Your task to perform on an android device: turn on the 12-hour format for clock Image 0: 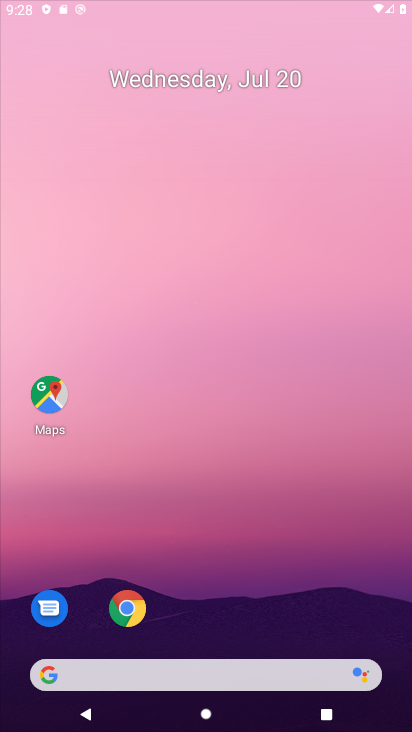
Step 0: press back button
Your task to perform on an android device: turn on the 12-hour format for clock Image 1: 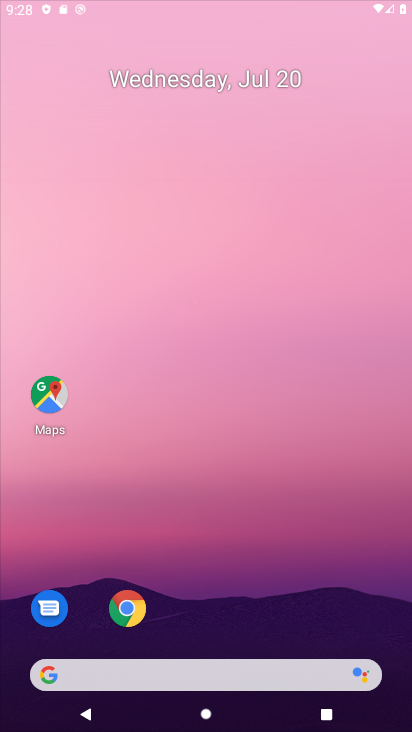
Step 1: drag from (198, 183) to (171, 112)
Your task to perform on an android device: turn on the 12-hour format for clock Image 2: 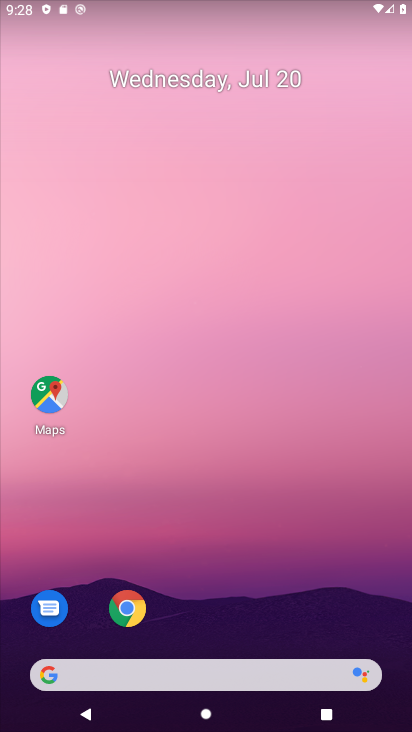
Step 2: press back button
Your task to perform on an android device: turn on the 12-hour format for clock Image 3: 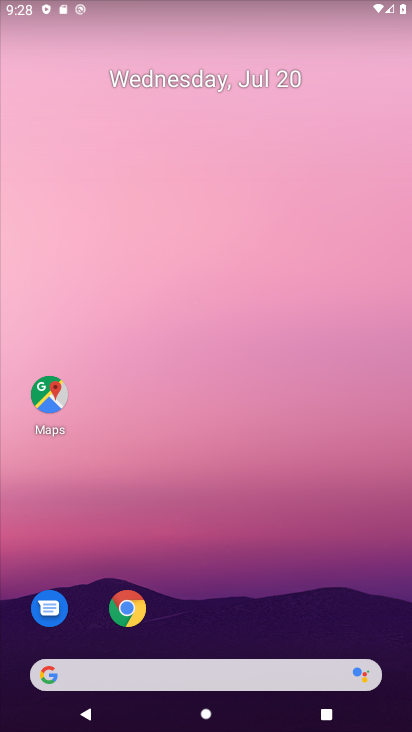
Step 3: press back button
Your task to perform on an android device: turn on the 12-hour format for clock Image 4: 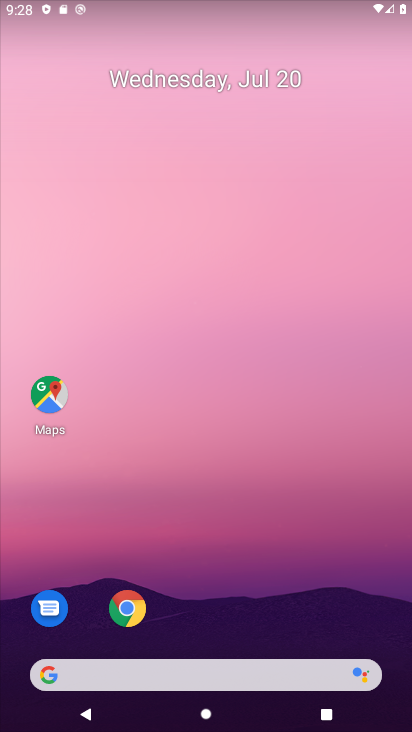
Step 4: drag from (252, 613) to (155, 64)
Your task to perform on an android device: turn on the 12-hour format for clock Image 5: 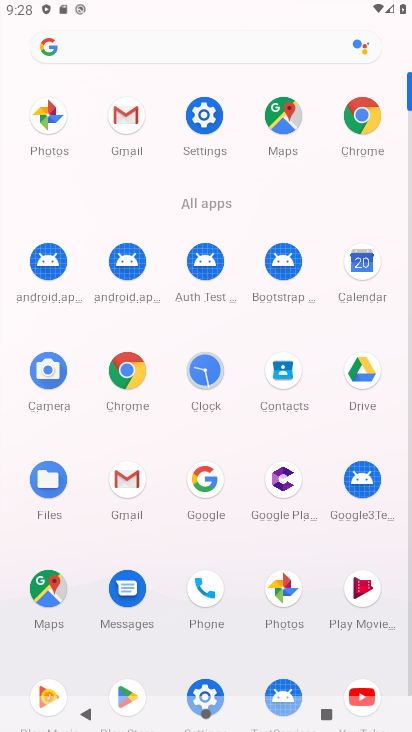
Step 5: click (193, 361)
Your task to perform on an android device: turn on the 12-hour format for clock Image 6: 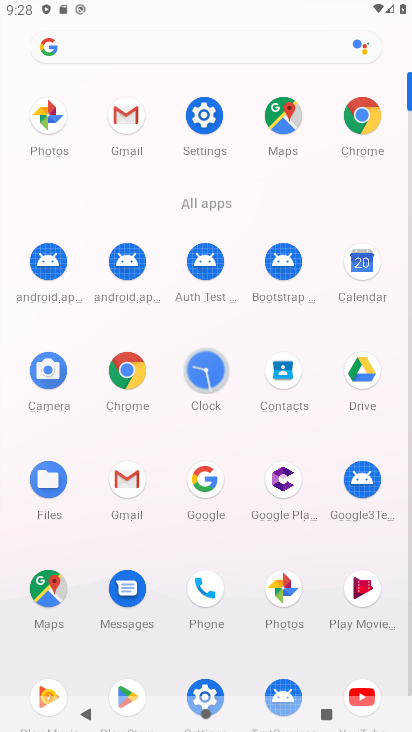
Step 6: click (193, 361)
Your task to perform on an android device: turn on the 12-hour format for clock Image 7: 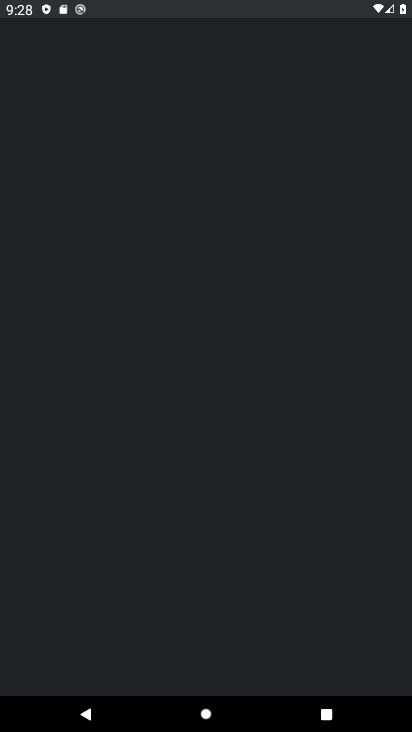
Step 7: click (203, 367)
Your task to perform on an android device: turn on the 12-hour format for clock Image 8: 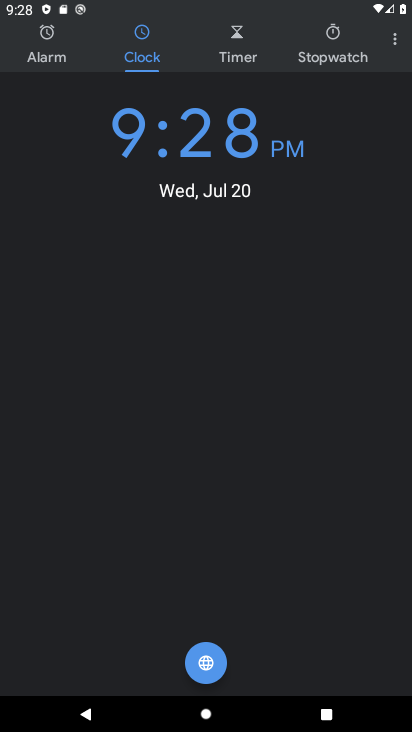
Step 8: click (400, 33)
Your task to perform on an android device: turn on the 12-hour format for clock Image 9: 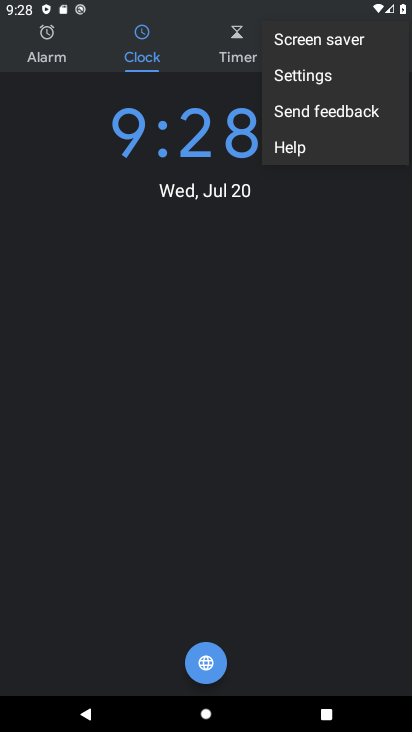
Step 9: click (337, 83)
Your task to perform on an android device: turn on the 12-hour format for clock Image 10: 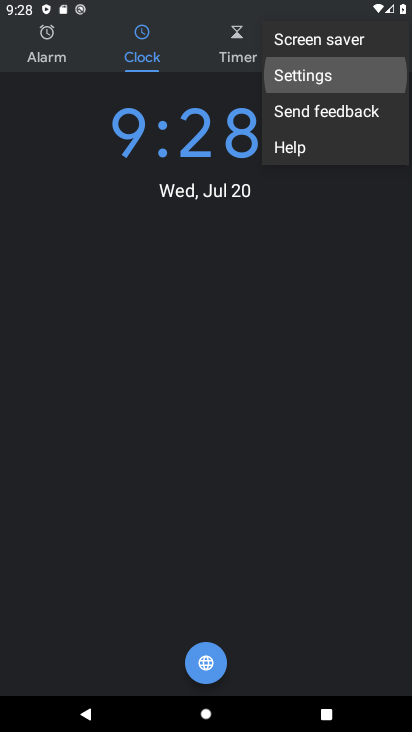
Step 10: click (325, 81)
Your task to perform on an android device: turn on the 12-hour format for clock Image 11: 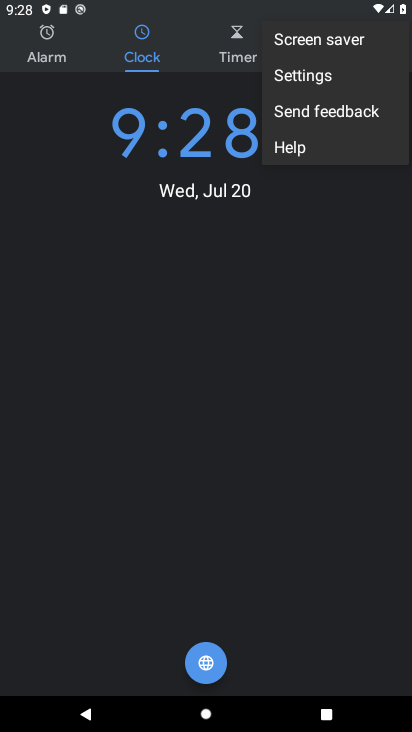
Step 11: click (322, 77)
Your task to perform on an android device: turn on the 12-hour format for clock Image 12: 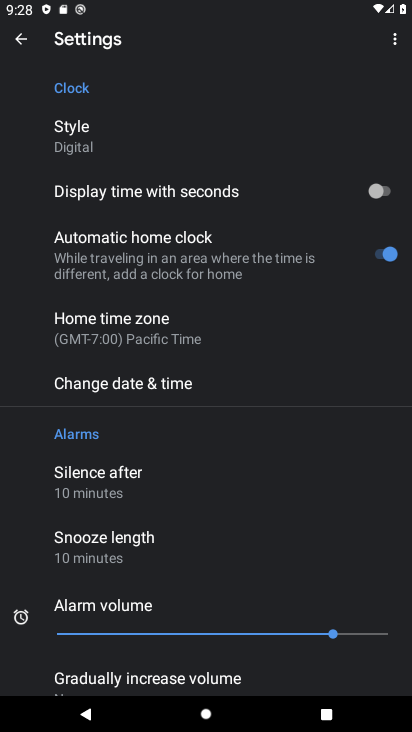
Step 12: click (122, 375)
Your task to perform on an android device: turn on the 12-hour format for clock Image 13: 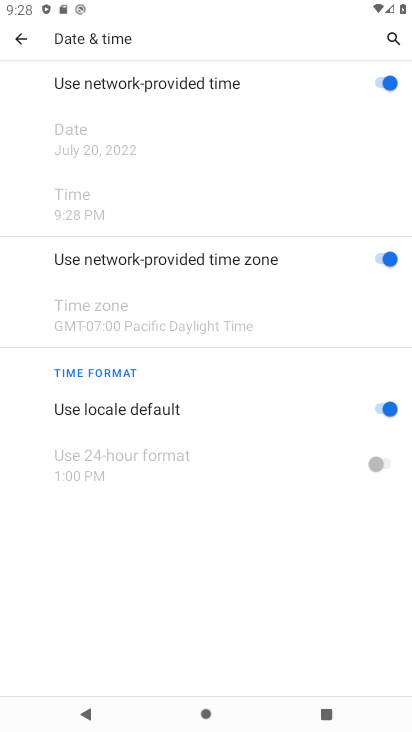
Step 13: task complete